Your task to perform on an android device: open app "Instagram" (install if not already installed) and enter user name: "nobler@yahoo.com" and password: "foraging" Image 0: 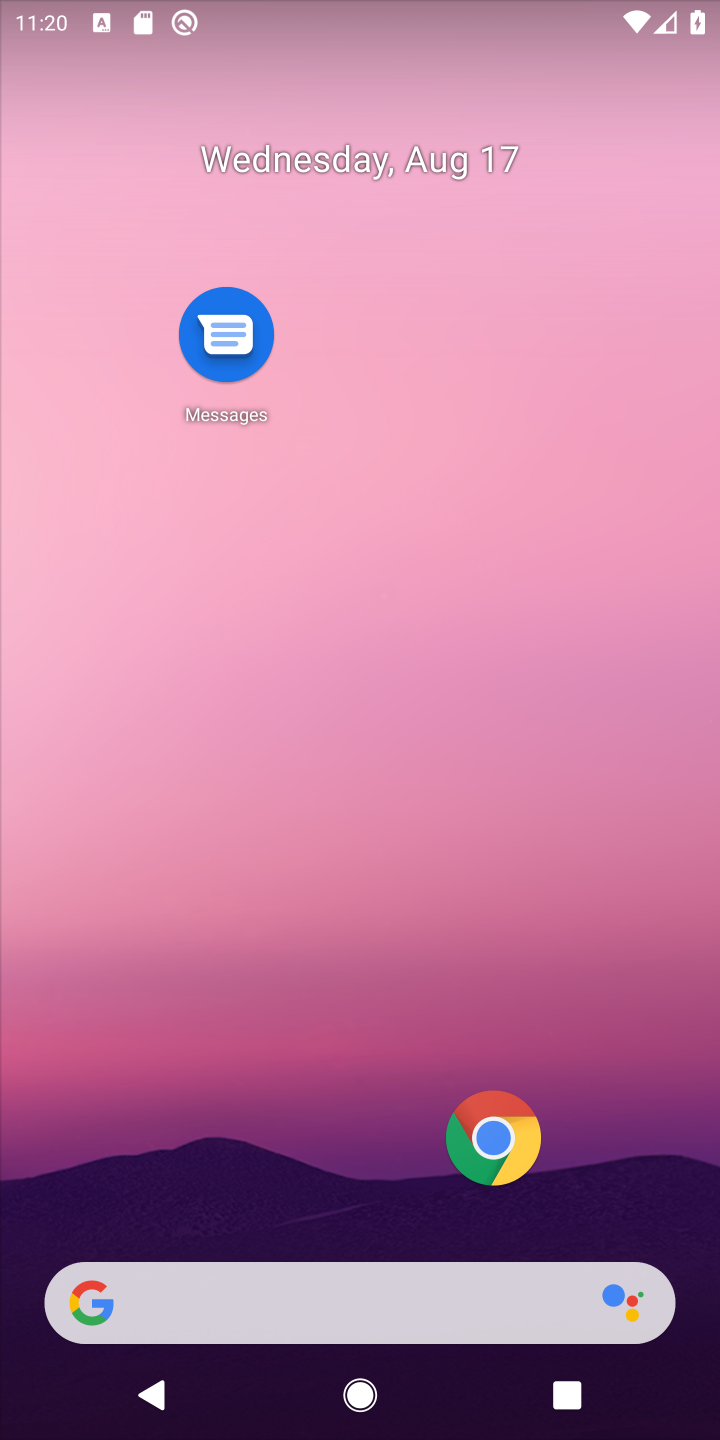
Step 0: drag from (278, 1161) to (426, 224)
Your task to perform on an android device: open app "Instagram" (install if not already installed) and enter user name: "nobler@yahoo.com" and password: "foraging" Image 1: 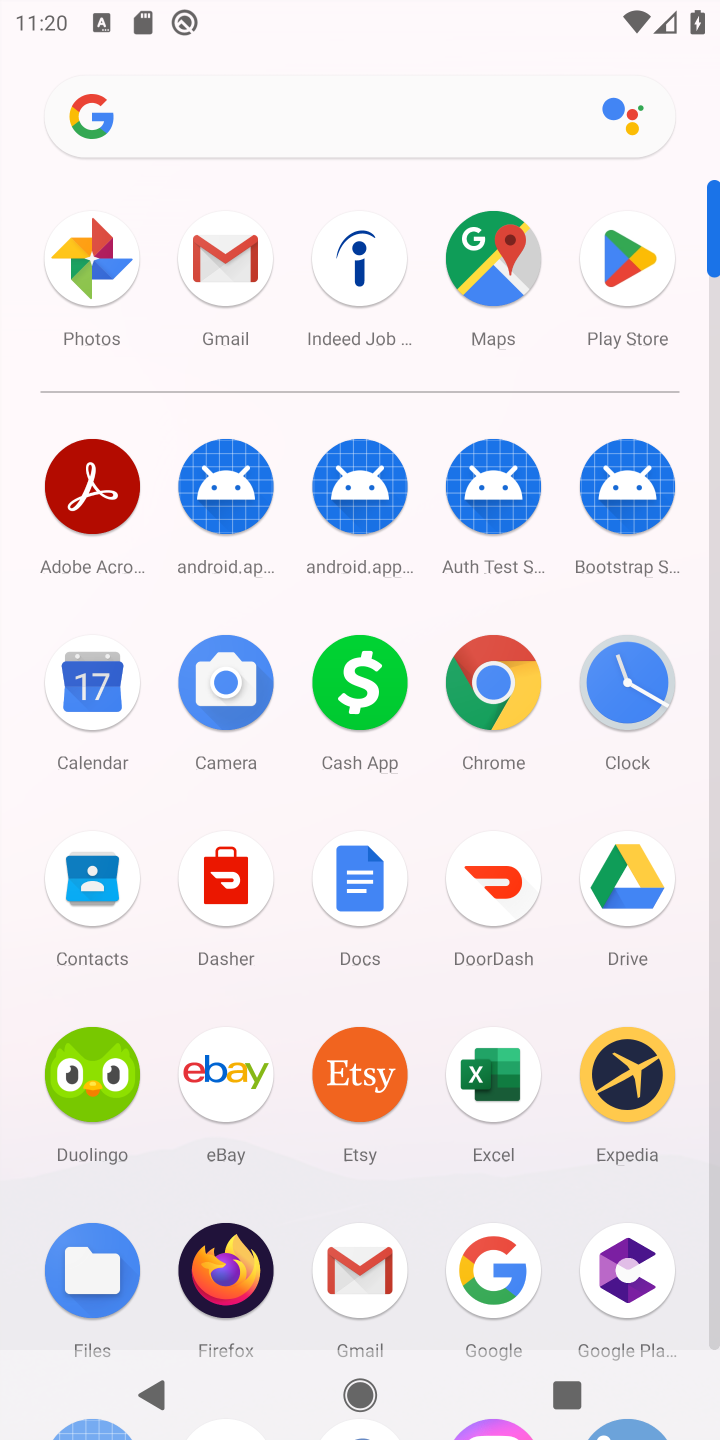
Step 1: click (623, 256)
Your task to perform on an android device: open app "Instagram" (install if not already installed) and enter user name: "nobler@yahoo.com" and password: "foraging" Image 2: 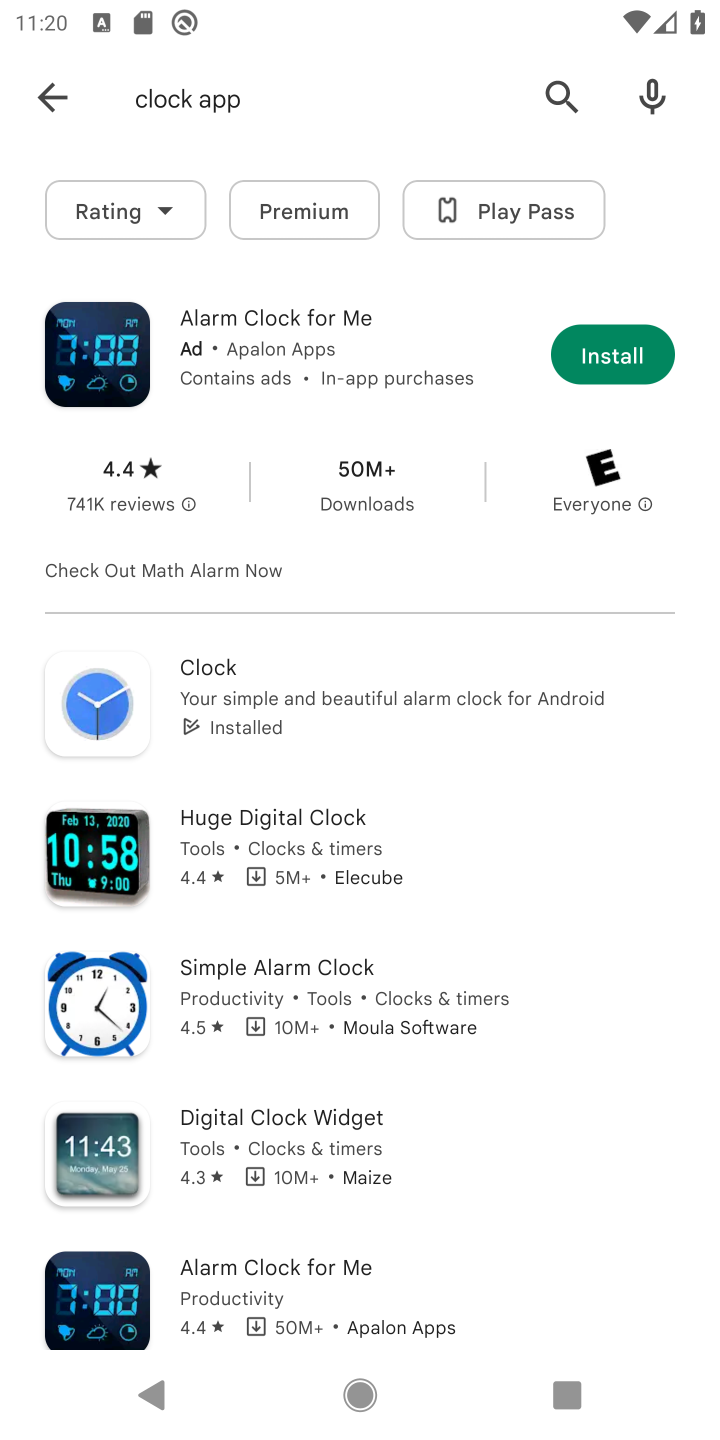
Step 2: click (68, 99)
Your task to perform on an android device: open app "Instagram" (install if not already installed) and enter user name: "nobler@yahoo.com" and password: "foraging" Image 3: 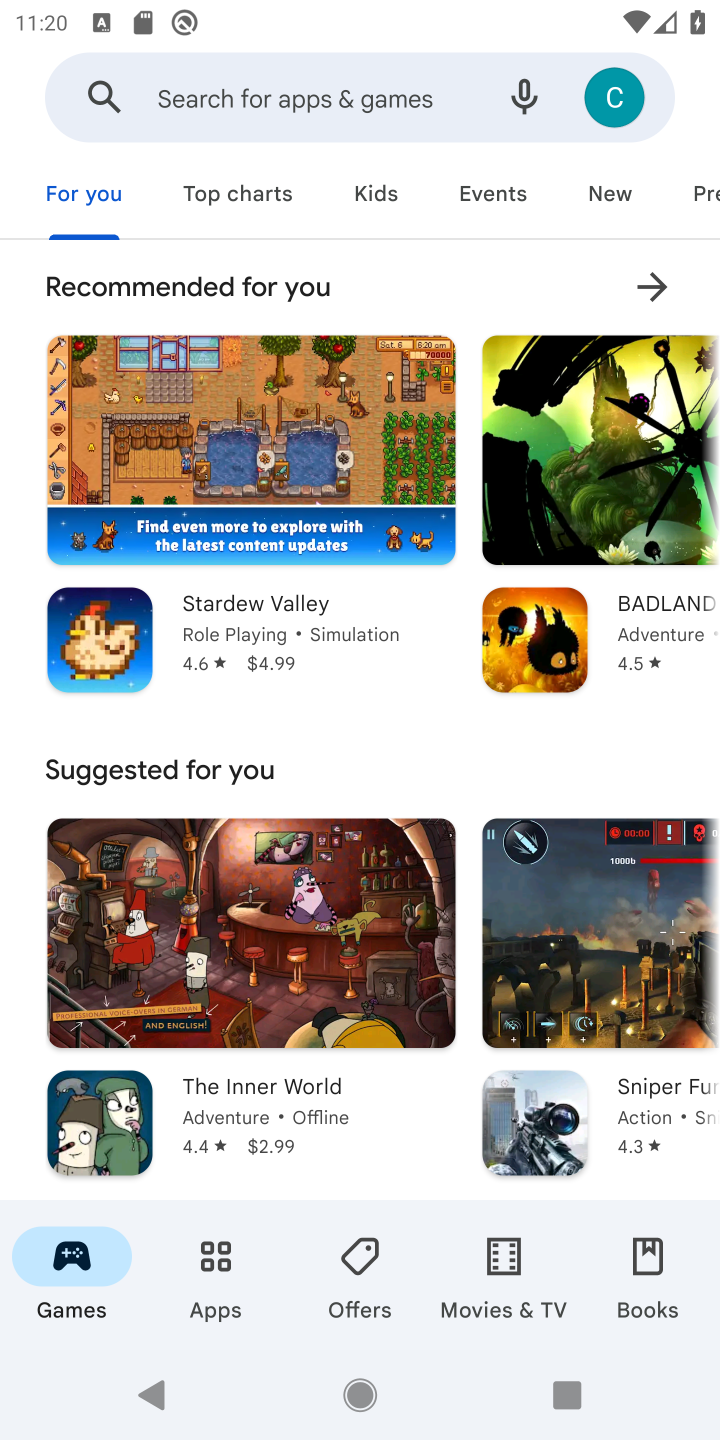
Step 3: click (334, 83)
Your task to perform on an android device: open app "Instagram" (install if not already installed) and enter user name: "nobler@yahoo.com" and password: "foraging" Image 4: 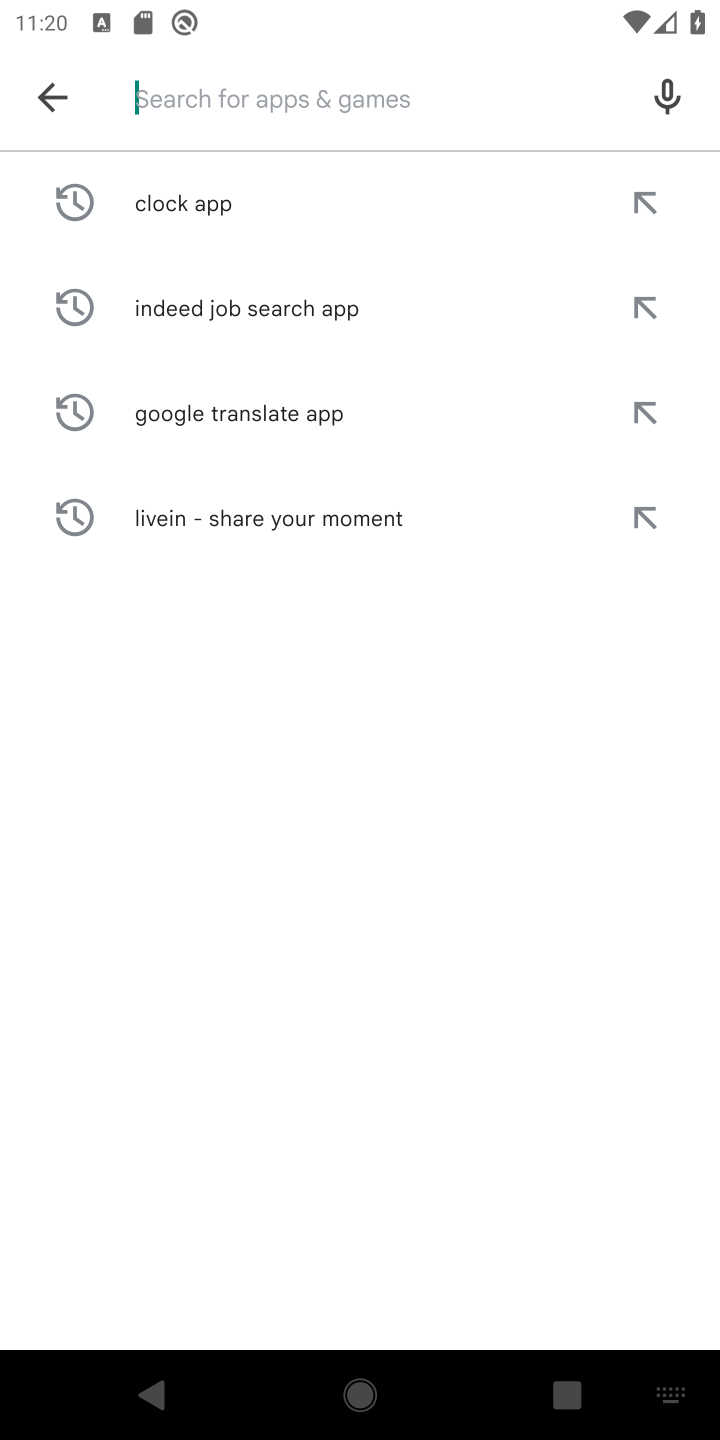
Step 4: type "Instagram "
Your task to perform on an android device: open app "Instagram" (install if not already installed) and enter user name: "nobler@yahoo.com" and password: "foraging" Image 5: 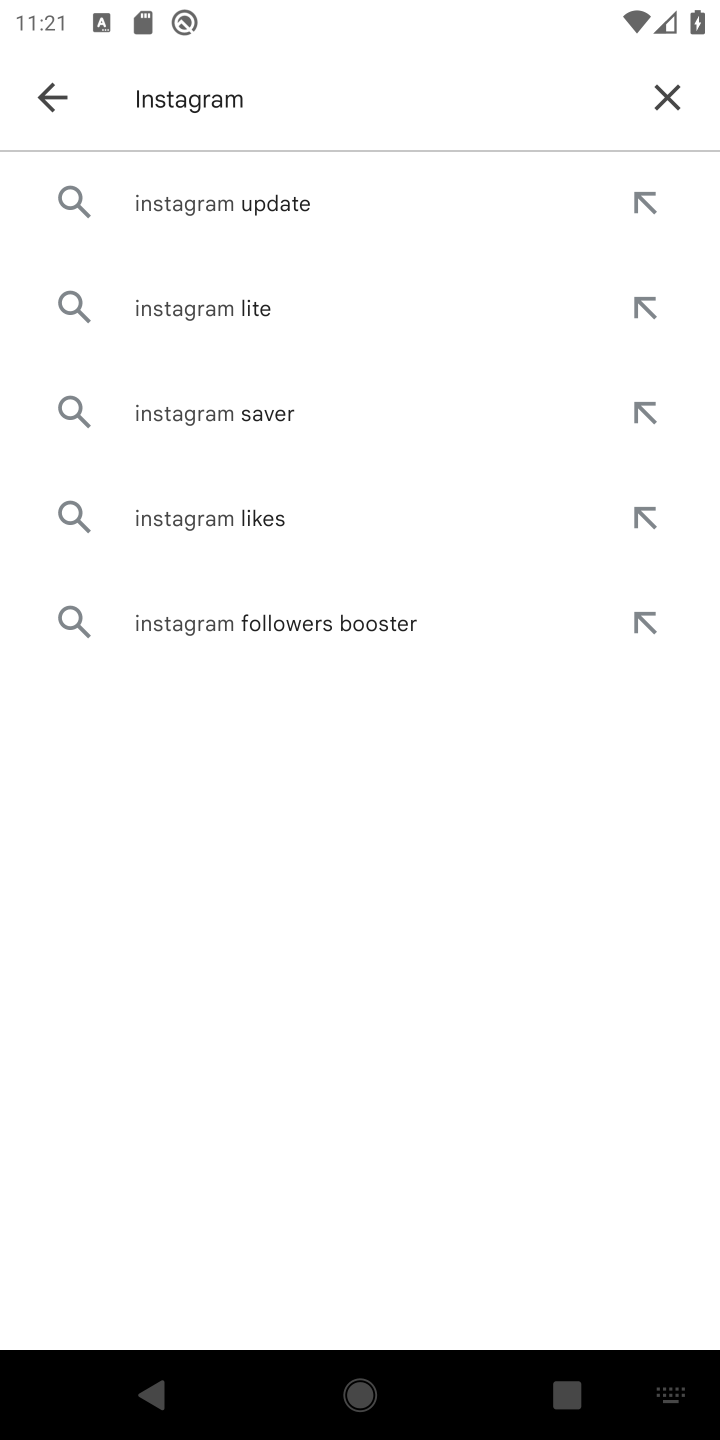
Step 5: click (229, 214)
Your task to perform on an android device: open app "Instagram" (install if not already installed) and enter user name: "nobler@yahoo.com" and password: "foraging" Image 6: 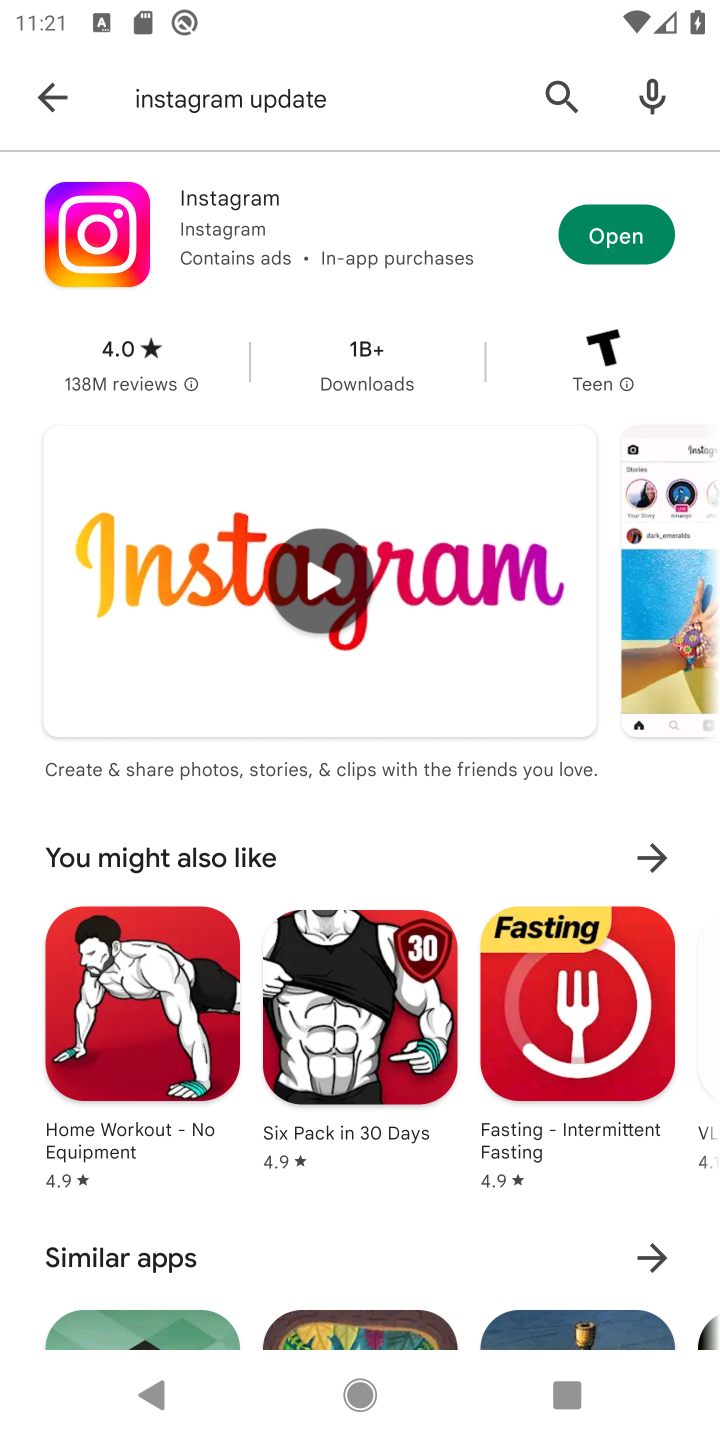
Step 6: click (584, 236)
Your task to perform on an android device: open app "Instagram" (install if not already installed) and enter user name: "nobler@yahoo.com" and password: "foraging" Image 7: 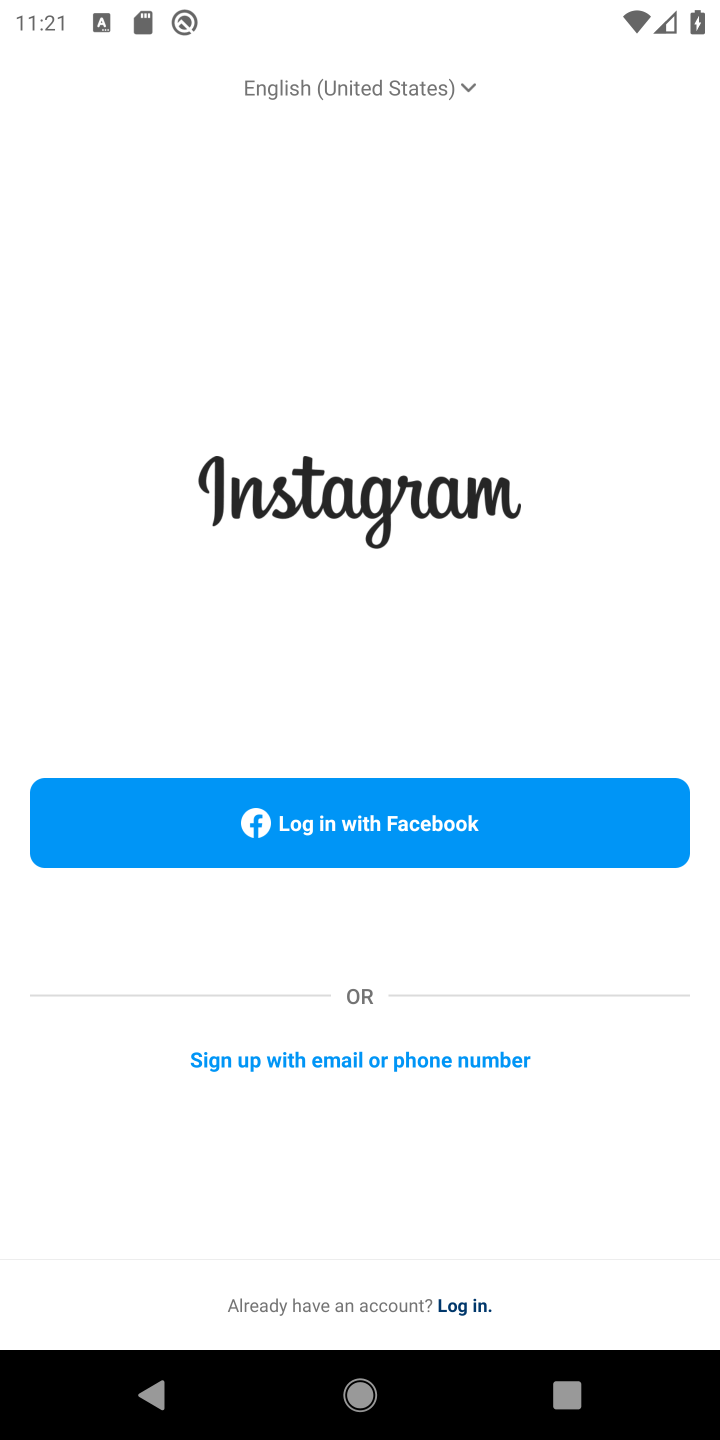
Step 7: task complete